Your task to perform on an android device: turn off airplane mode Image 0: 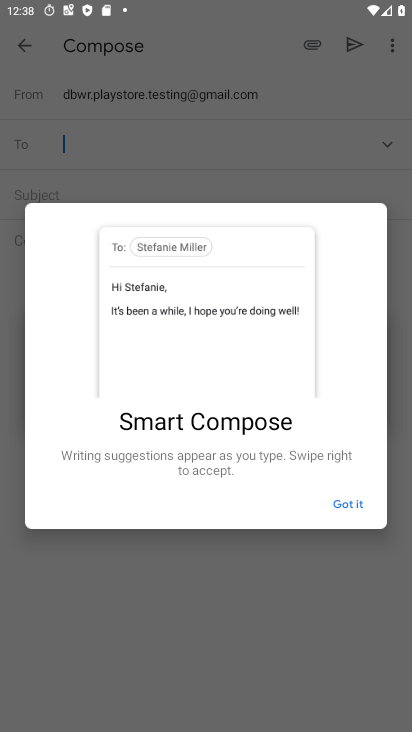
Step 0: press home button
Your task to perform on an android device: turn off airplane mode Image 1: 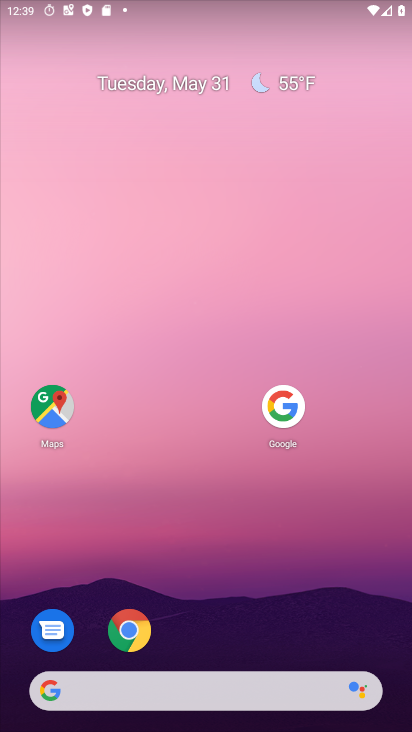
Step 1: drag from (215, 710) to (280, 270)
Your task to perform on an android device: turn off airplane mode Image 2: 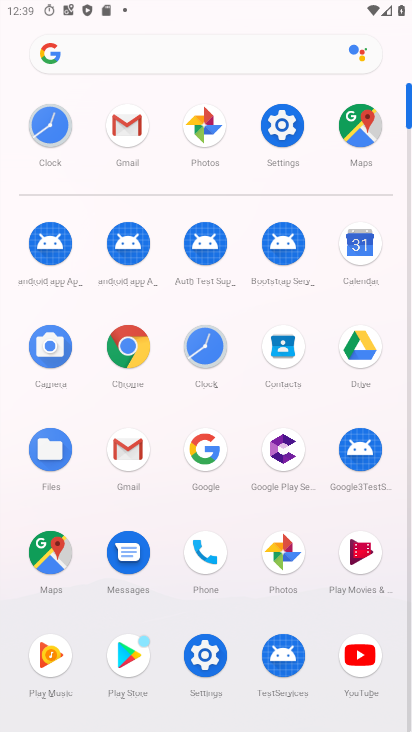
Step 2: click (289, 130)
Your task to perform on an android device: turn off airplane mode Image 3: 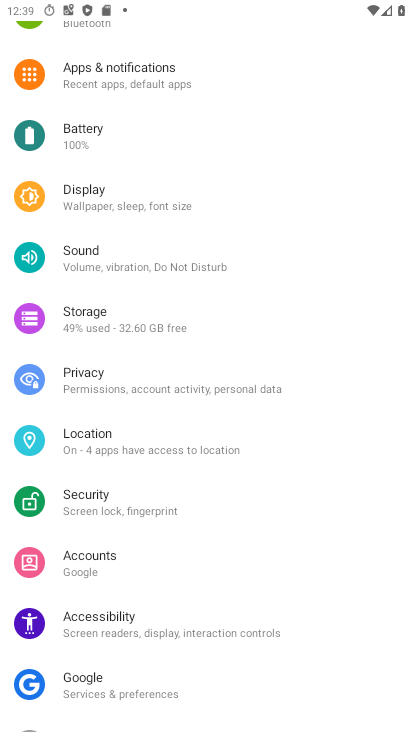
Step 3: drag from (233, 131) to (193, 288)
Your task to perform on an android device: turn off airplane mode Image 4: 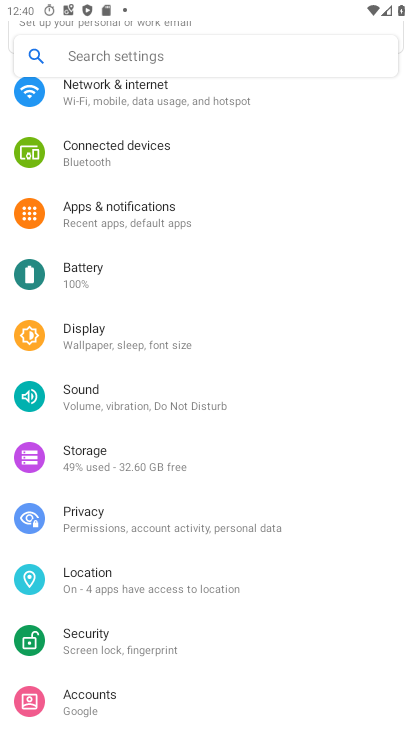
Step 4: drag from (190, 91) to (210, 410)
Your task to perform on an android device: turn off airplane mode Image 5: 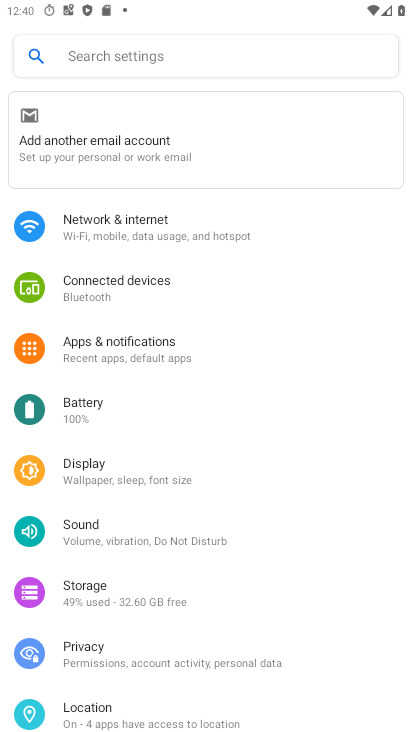
Step 5: click (147, 231)
Your task to perform on an android device: turn off airplane mode Image 6: 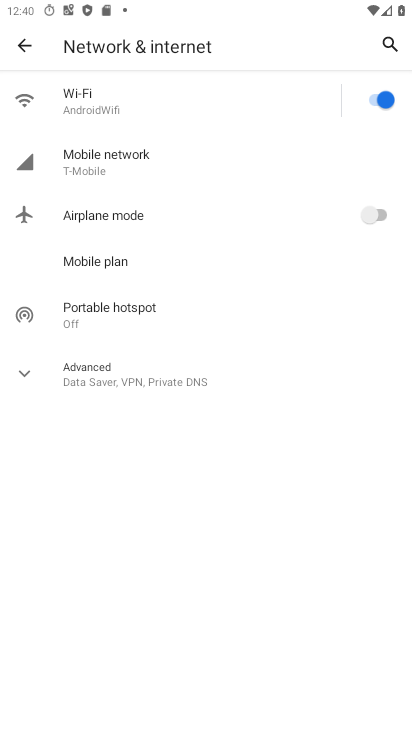
Step 6: task complete